Your task to perform on an android device: star an email in the gmail app Image 0: 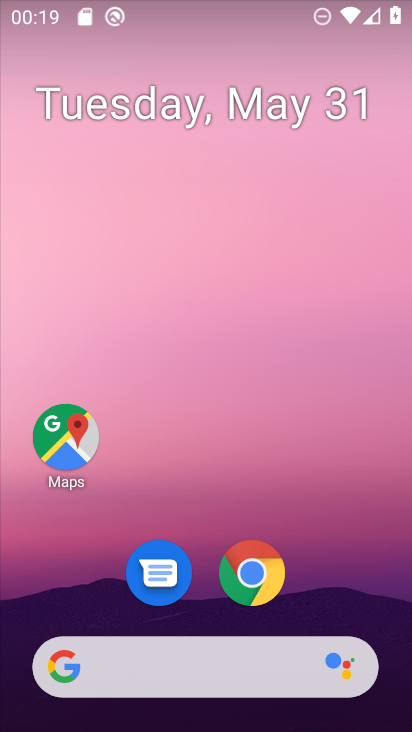
Step 0: drag from (167, 682) to (253, 40)
Your task to perform on an android device: star an email in the gmail app Image 1: 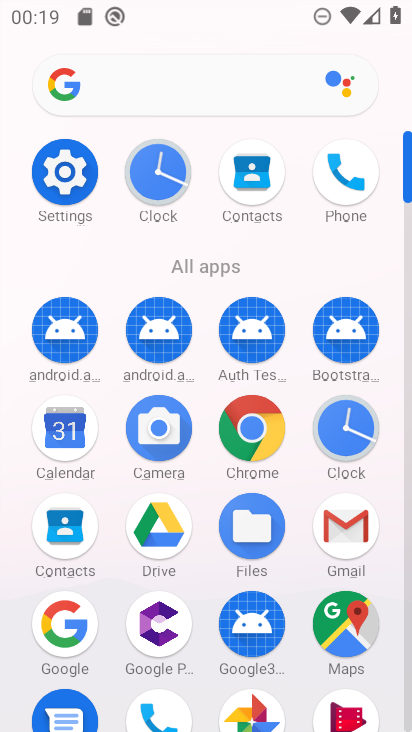
Step 1: click (338, 523)
Your task to perform on an android device: star an email in the gmail app Image 2: 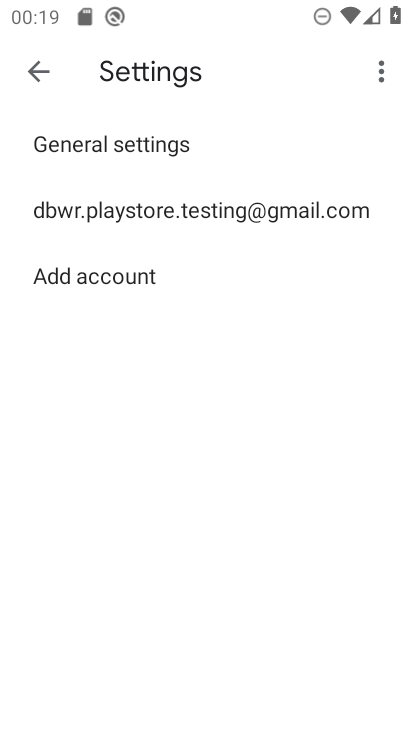
Step 2: click (39, 75)
Your task to perform on an android device: star an email in the gmail app Image 3: 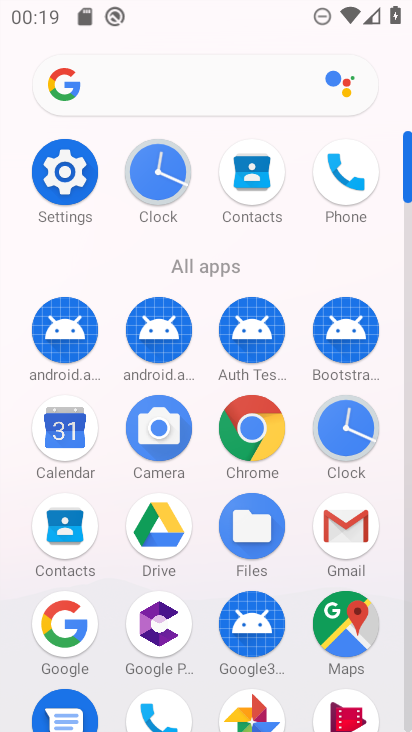
Step 3: click (339, 538)
Your task to perform on an android device: star an email in the gmail app Image 4: 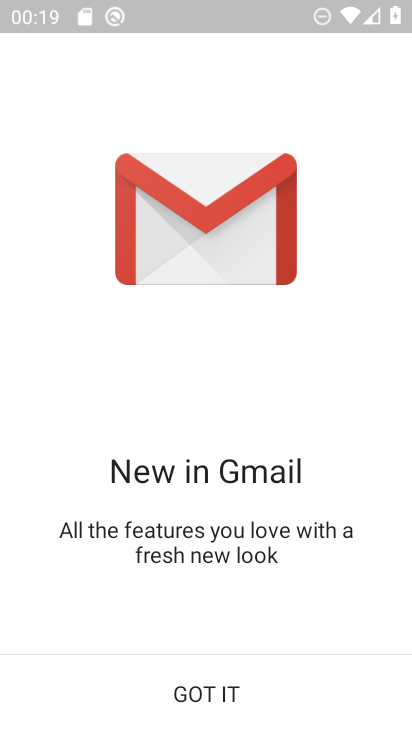
Step 4: click (209, 699)
Your task to perform on an android device: star an email in the gmail app Image 5: 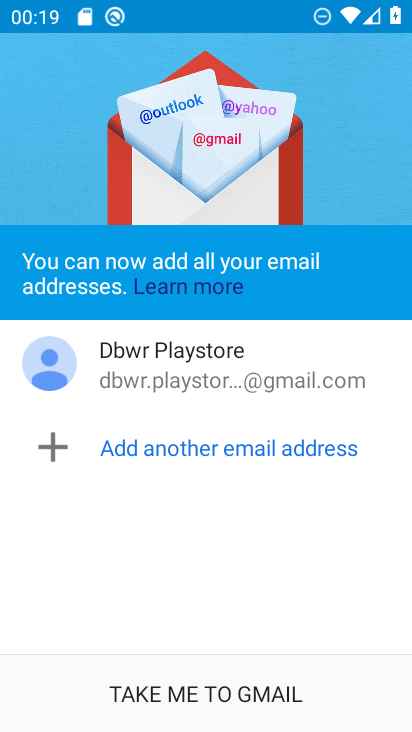
Step 5: click (212, 709)
Your task to perform on an android device: star an email in the gmail app Image 6: 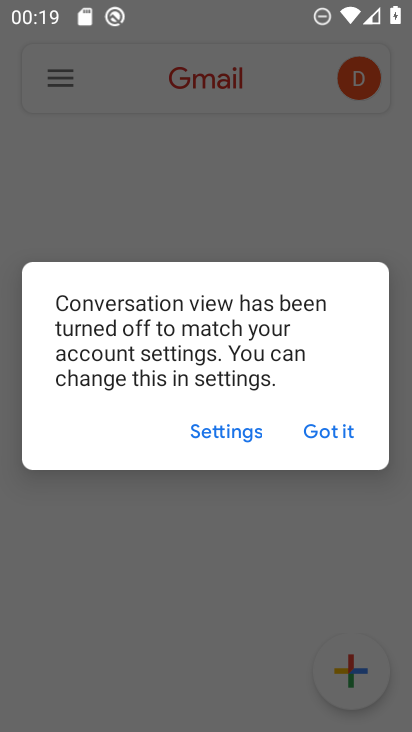
Step 6: click (328, 433)
Your task to perform on an android device: star an email in the gmail app Image 7: 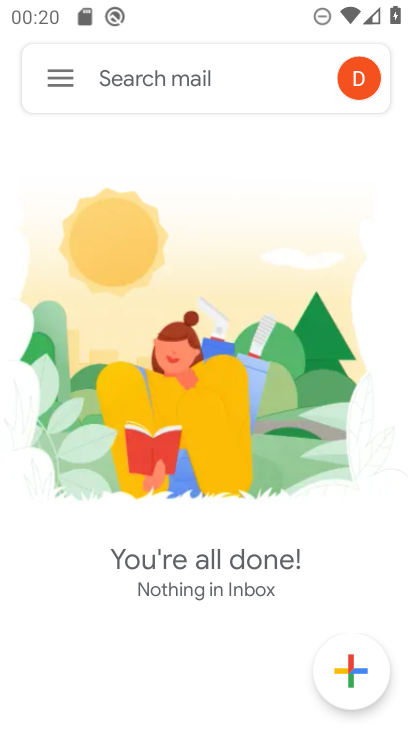
Step 7: task complete